Your task to perform on an android device: set the timer Image 0: 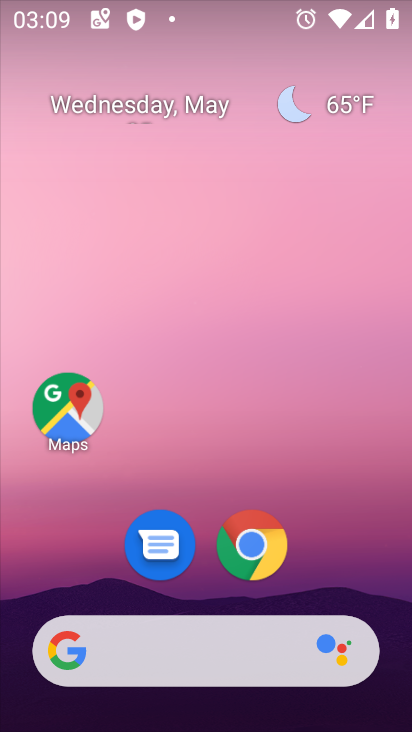
Step 0: drag from (345, 567) to (190, 57)
Your task to perform on an android device: set the timer Image 1: 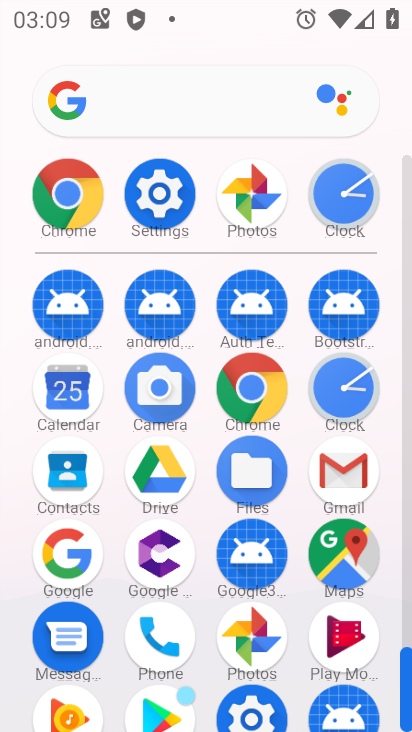
Step 1: click (343, 192)
Your task to perform on an android device: set the timer Image 2: 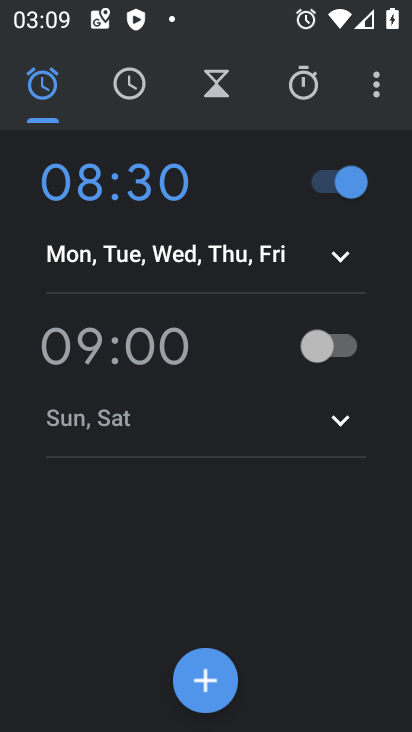
Step 2: click (198, 89)
Your task to perform on an android device: set the timer Image 3: 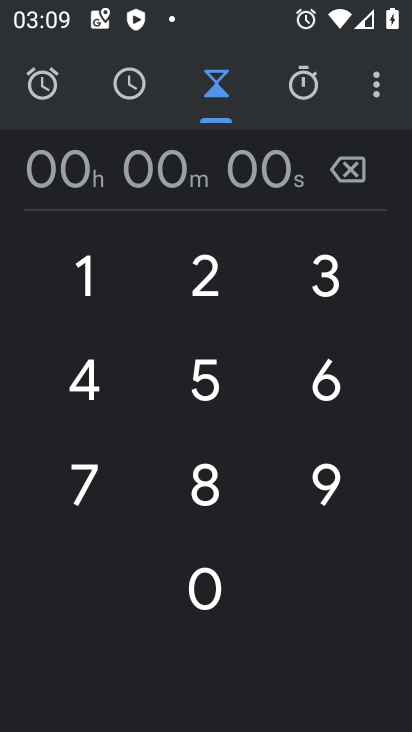
Step 3: click (93, 261)
Your task to perform on an android device: set the timer Image 4: 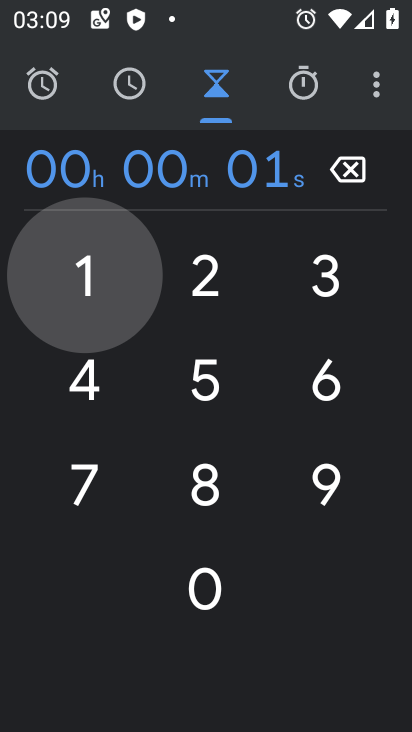
Step 4: click (93, 261)
Your task to perform on an android device: set the timer Image 5: 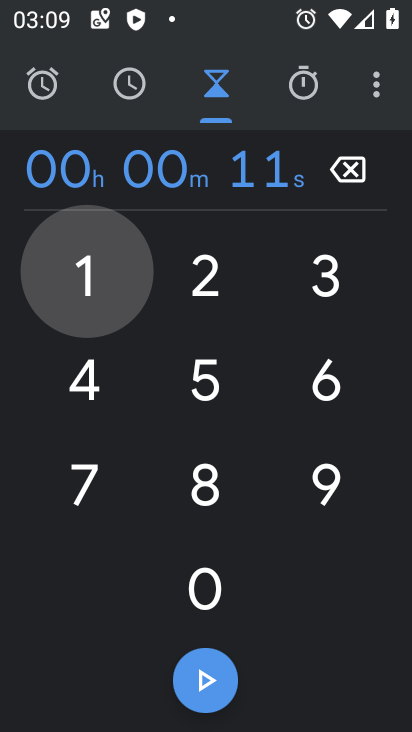
Step 5: click (91, 262)
Your task to perform on an android device: set the timer Image 6: 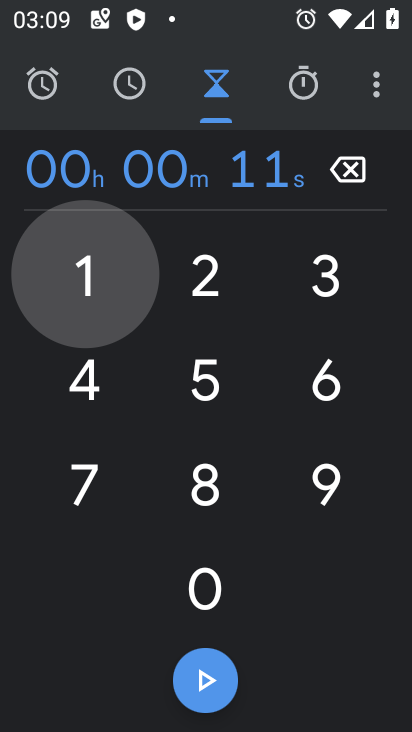
Step 6: click (93, 262)
Your task to perform on an android device: set the timer Image 7: 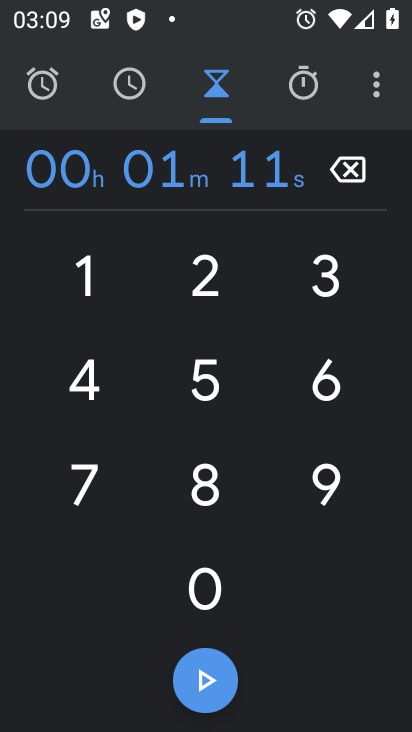
Step 7: click (94, 263)
Your task to perform on an android device: set the timer Image 8: 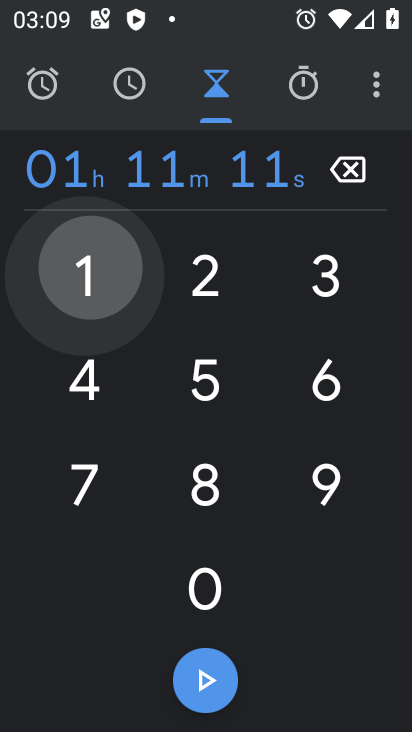
Step 8: click (94, 263)
Your task to perform on an android device: set the timer Image 9: 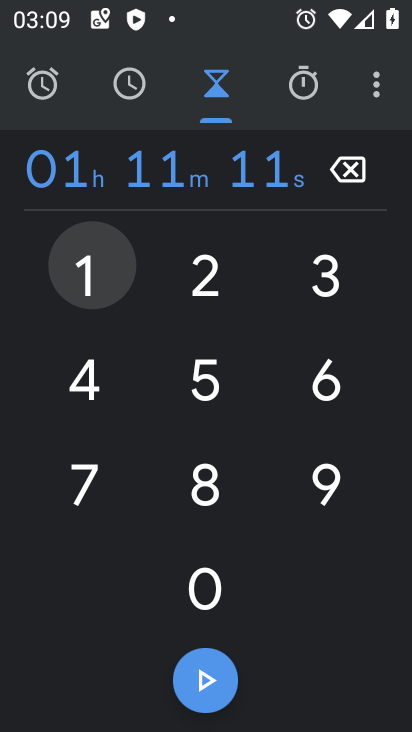
Step 9: click (95, 263)
Your task to perform on an android device: set the timer Image 10: 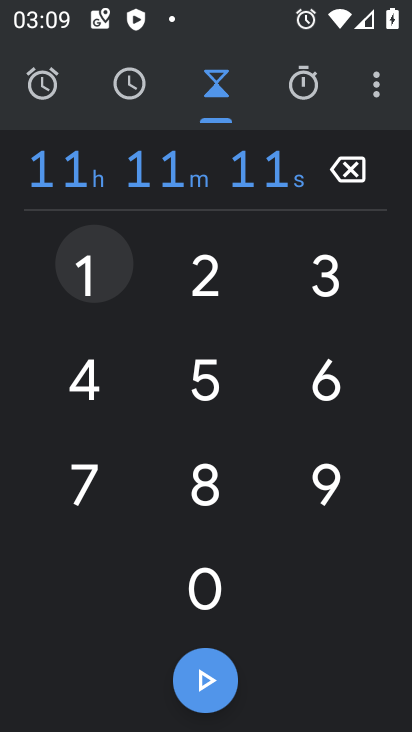
Step 10: click (95, 263)
Your task to perform on an android device: set the timer Image 11: 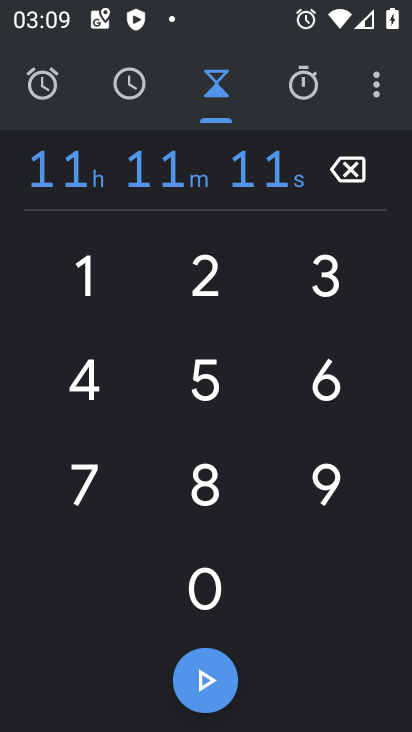
Step 11: task complete